Your task to perform on an android device: Go to battery settings Image 0: 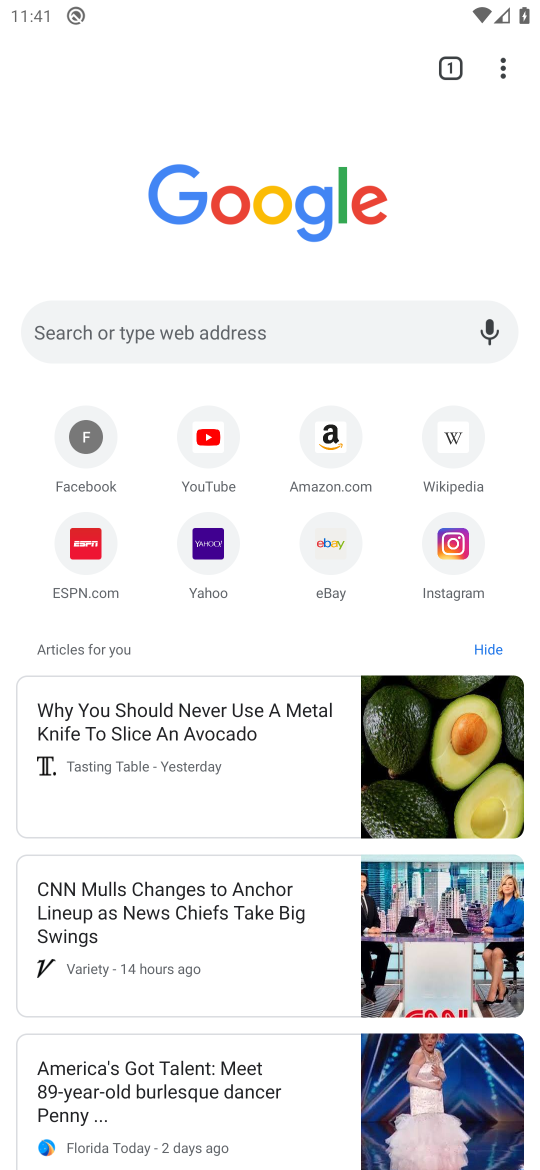
Step 0: press home button
Your task to perform on an android device: Go to battery settings Image 1: 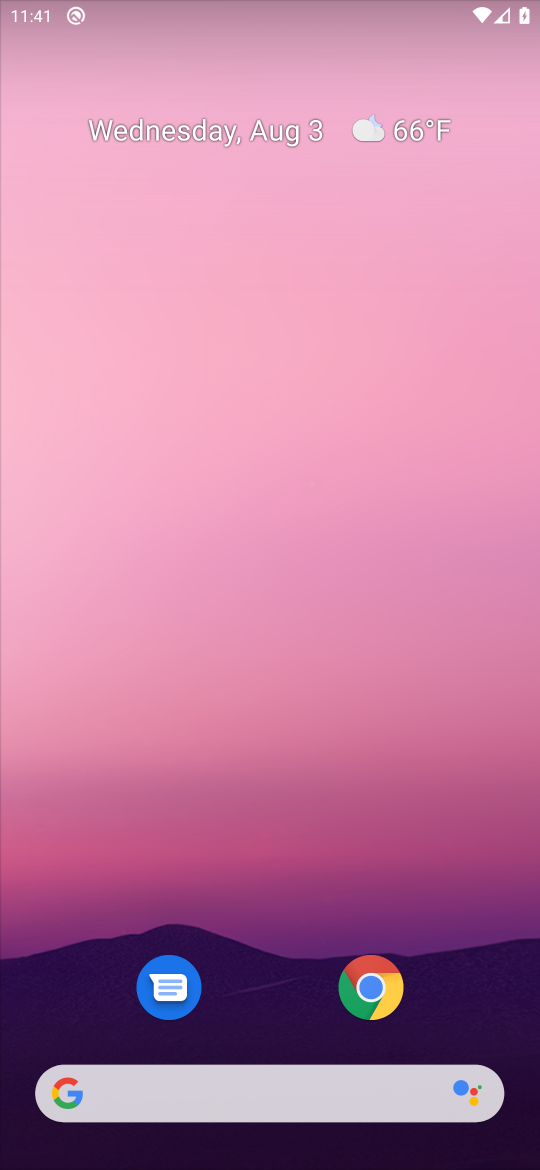
Step 1: drag from (163, 1086) to (61, 333)
Your task to perform on an android device: Go to battery settings Image 2: 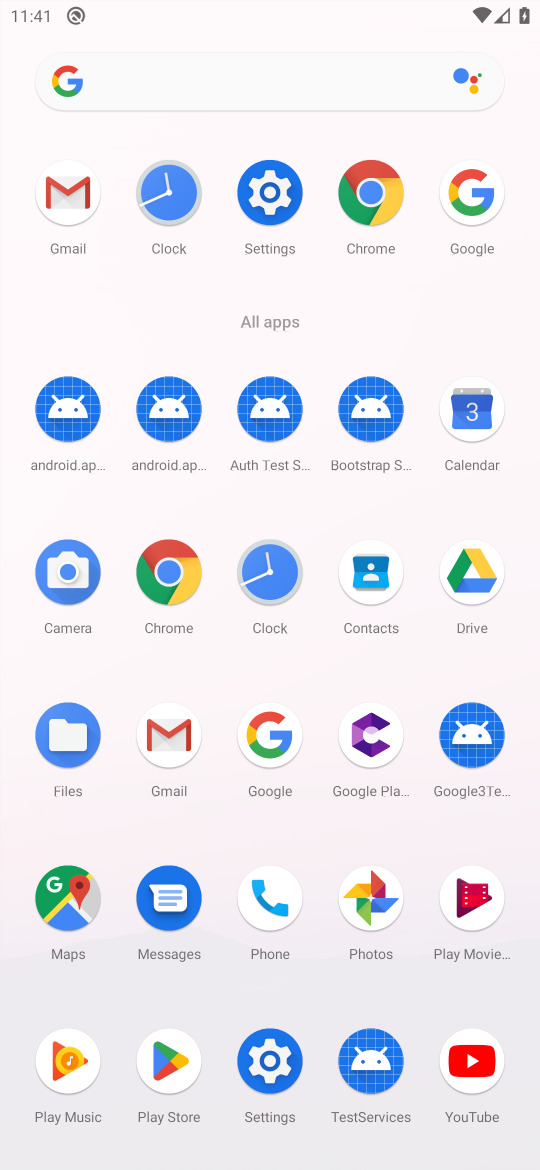
Step 2: click (242, 1062)
Your task to perform on an android device: Go to battery settings Image 3: 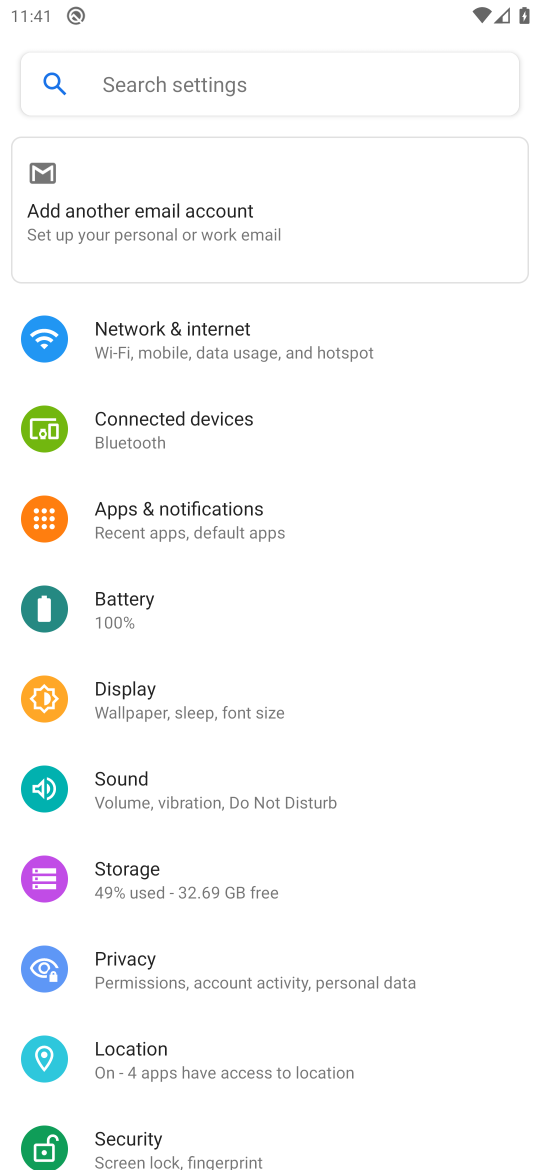
Step 3: click (133, 591)
Your task to perform on an android device: Go to battery settings Image 4: 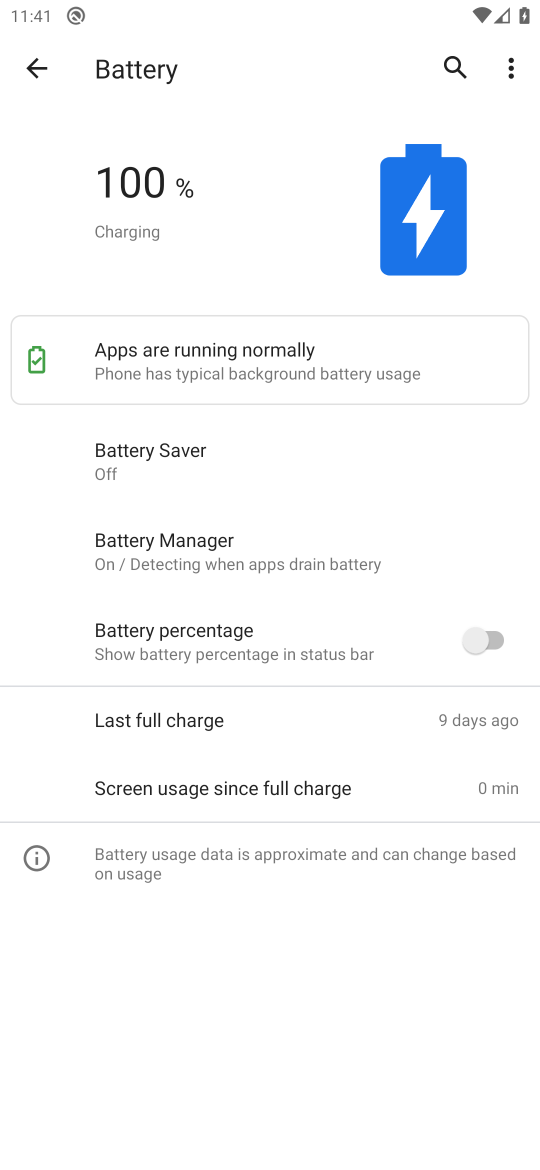
Step 4: task complete